Your task to perform on an android device: open app "Reddit" (install if not already installed) and go to login screen Image 0: 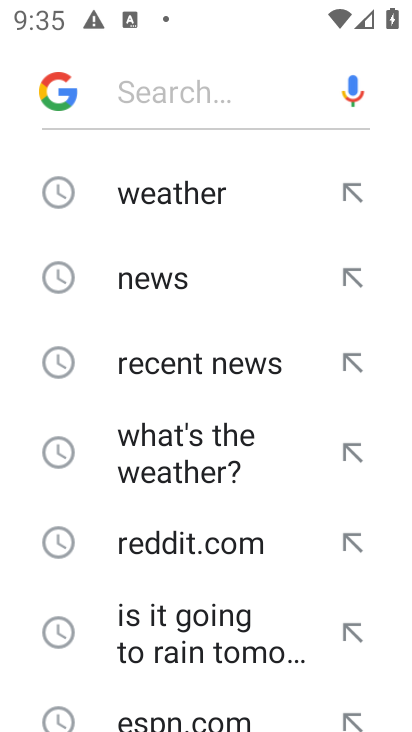
Step 0: press home button
Your task to perform on an android device: open app "Reddit" (install if not already installed) and go to login screen Image 1: 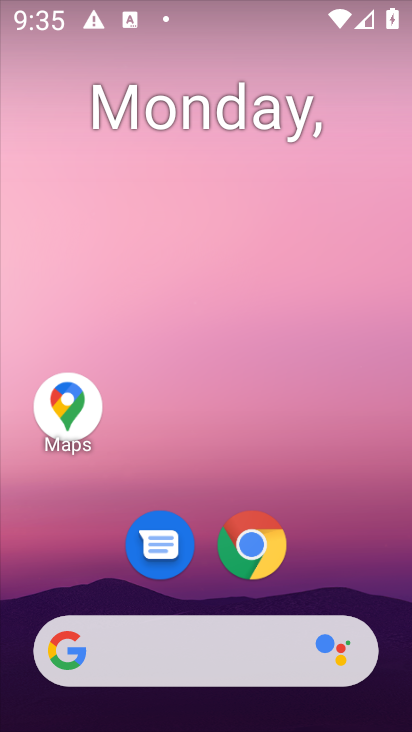
Step 1: drag from (372, 520) to (357, 88)
Your task to perform on an android device: open app "Reddit" (install if not already installed) and go to login screen Image 2: 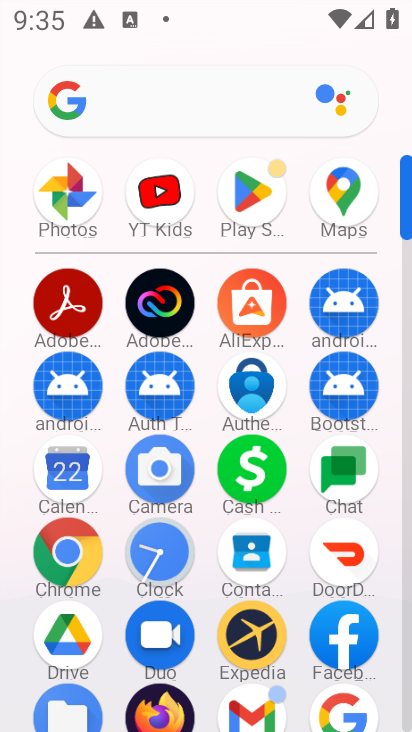
Step 2: click (256, 206)
Your task to perform on an android device: open app "Reddit" (install if not already installed) and go to login screen Image 3: 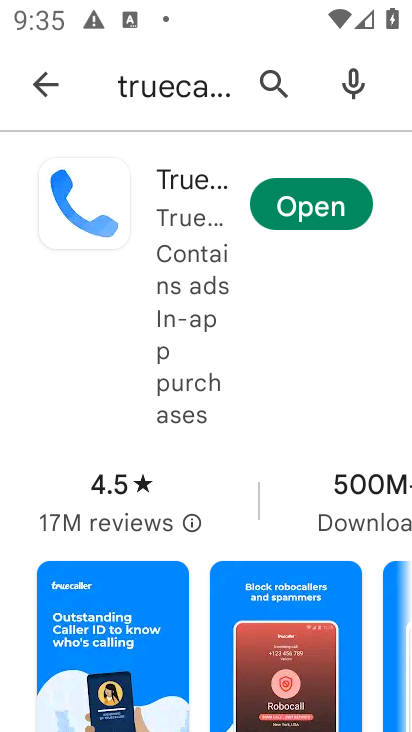
Step 3: press back button
Your task to perform on an android device: open app "Reddit" (install if not already installed) and go to login screen Image 4: 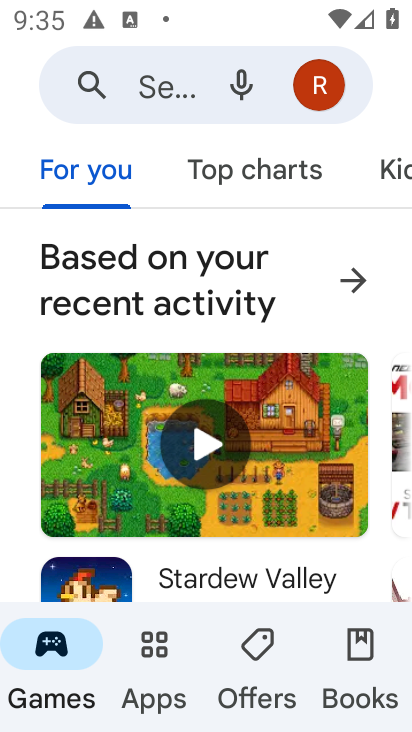
Step 4: click (171, 88)
Your task to perform on an android device: open app "Reddit" (install if not already installed) and go to login screen Image 5: 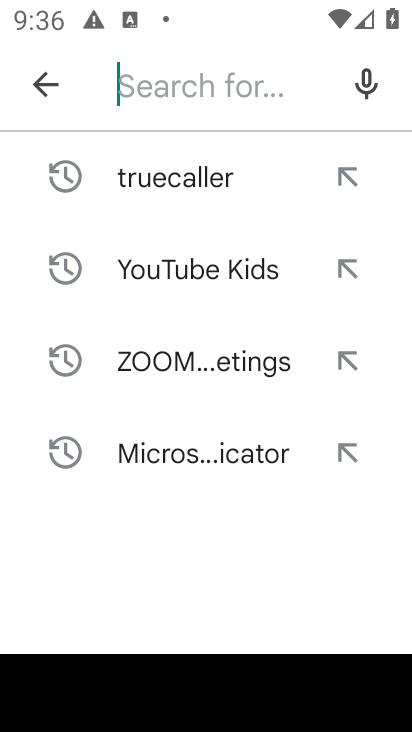
Step 5: type "reddit"
Your task to perform on an android device: open app "Reddit" (install if not already installed) and go to login screen Image 6: 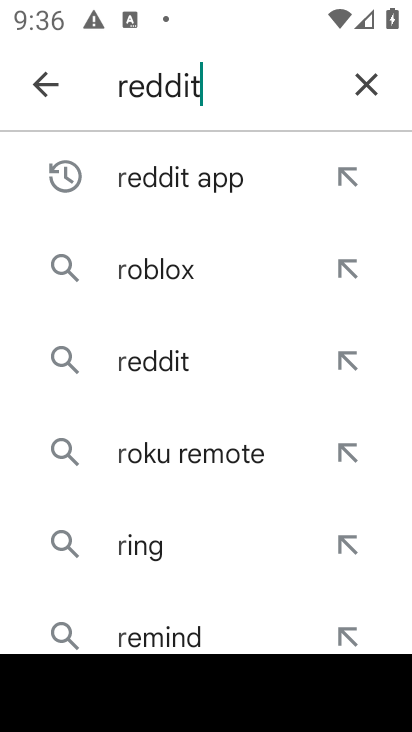
Step 6: press enter
Your task to perform on an android device: open app "Reddit" (install if not already installed) and go to login screen Image 7: 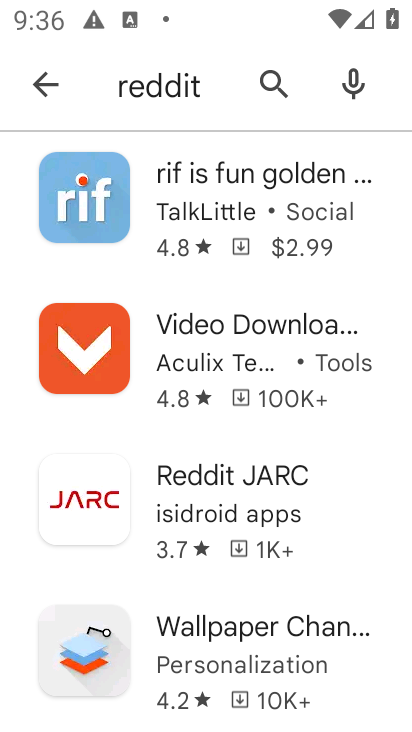
Step 7: task complete